Your task to perform on an android device: Show me popular videos on Youtube Image 0: 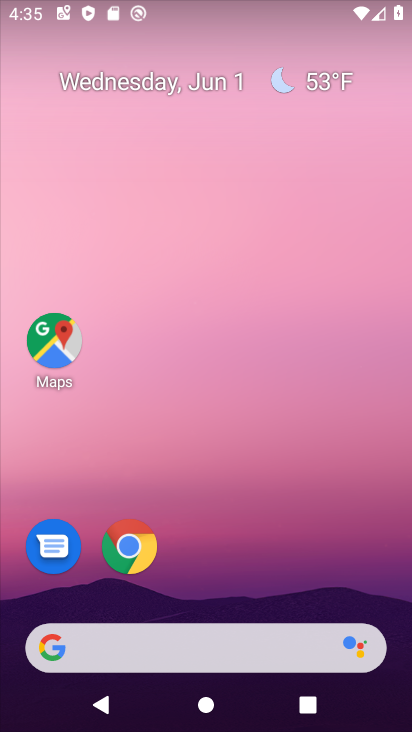
Step 0: click (133, 47)
Your task to perform on an android device: Show me popular videos on Youtube Image 1: 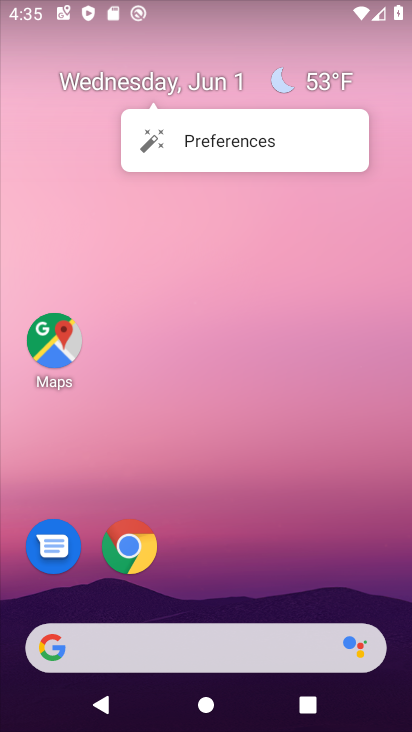
Step 1: drag from (180, 164) to (150, 55)
Your task to perform on an android device: Show me popular videos on Youtube Image 2: 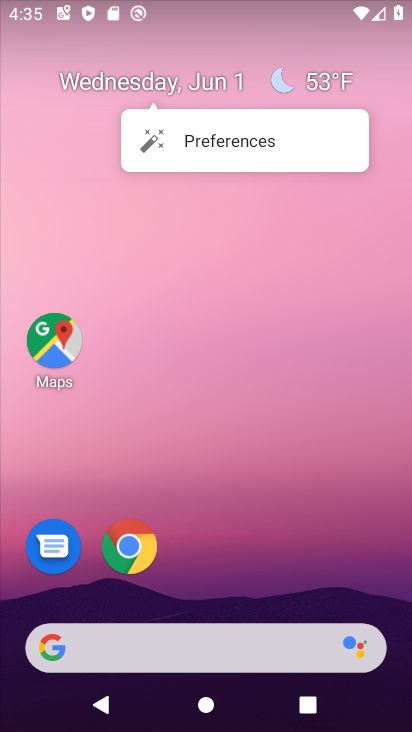
Step 2: drag from (236, 584) to (158, 271)
Your task to perform on an android device: Show me popular videos on Youtube Image 3: 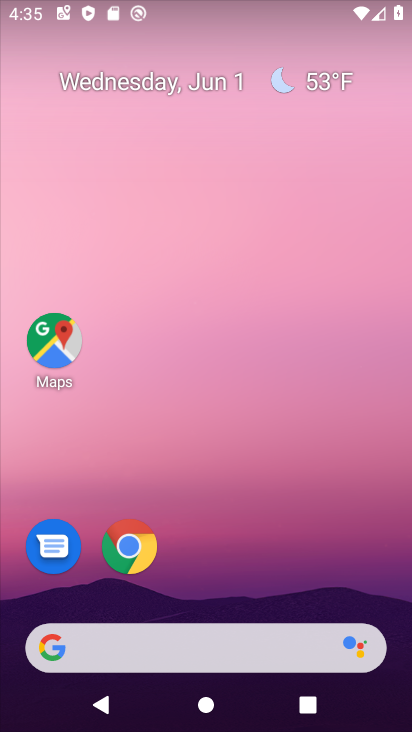
Step 3: drag from (201, 184) to (192, 136)
Your task to perform on an android device: Show me popular videos on Youtube Image 4: 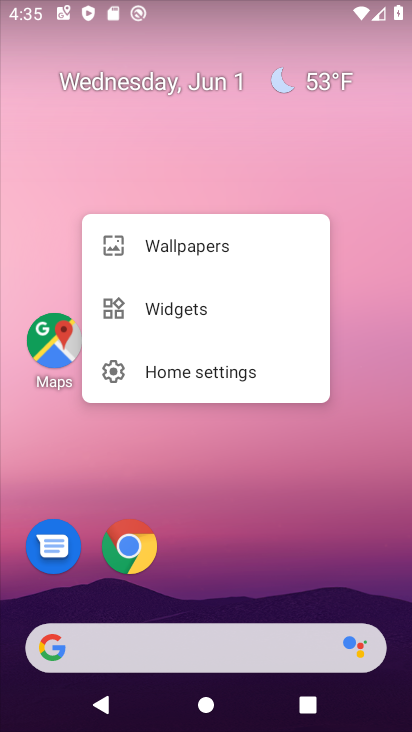
Step 4: drag from (269, 584) to (334, 156)
Your task to perform on an android device: Show me popular videos on Youtube Image 5: 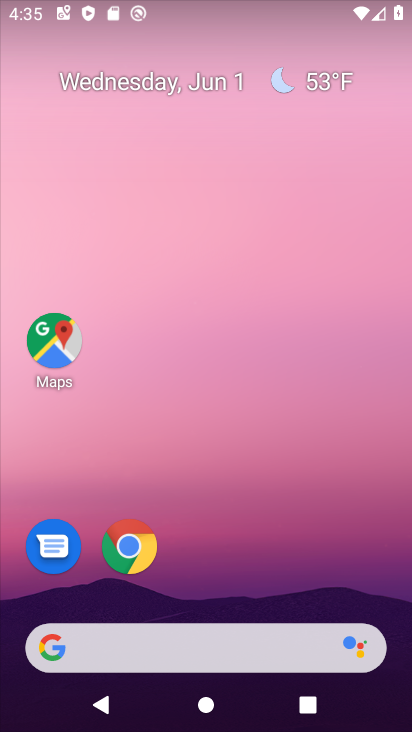
Step 5: drag from (272, 540) to (148, 252)
Your task to perform on an android device: Show me popular videos on Youtube Image 6: 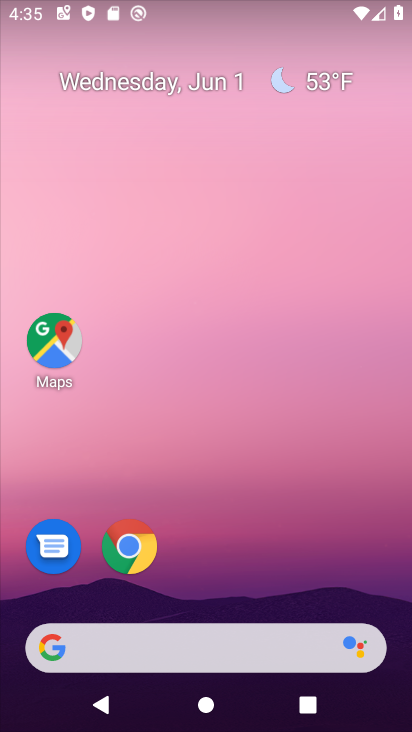
Step 6: drag from (228, 565) to (75, 110)
Your task to perform on an android device: Show me popular videos on Youtube Image 7: 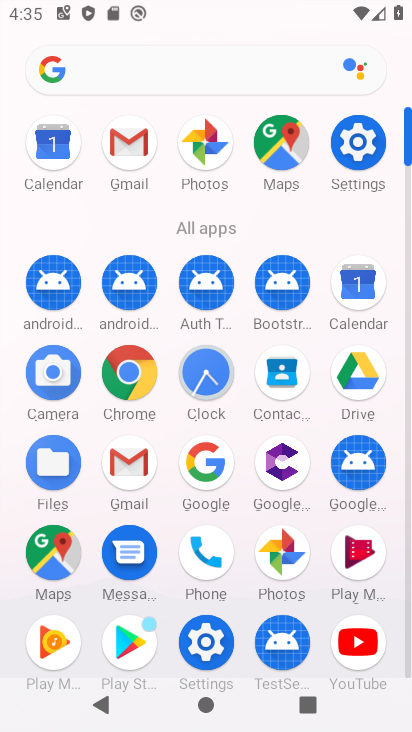
Step 7: click (360, 646)
Your task to perform on an android device: Show me popular videos on Youtube Image 8: 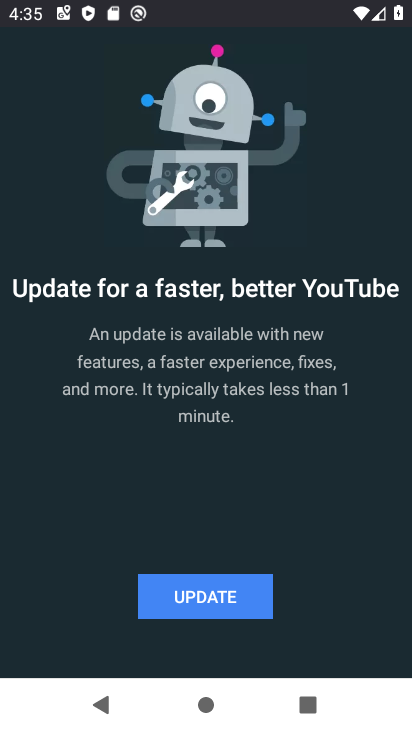
Step 8: click (219, 604)
Your task to perform on an android device: Show me popular videos on Youtube Image 9: 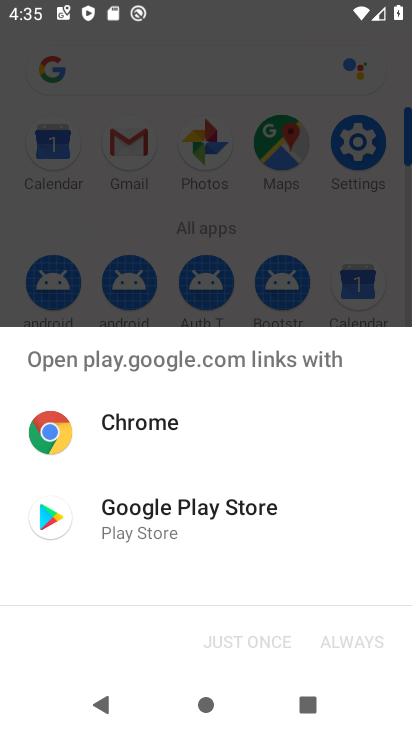
Step 9: click (151, 499)
Your task to perform on an android device: Show me popular videos on Youtube Image 10: 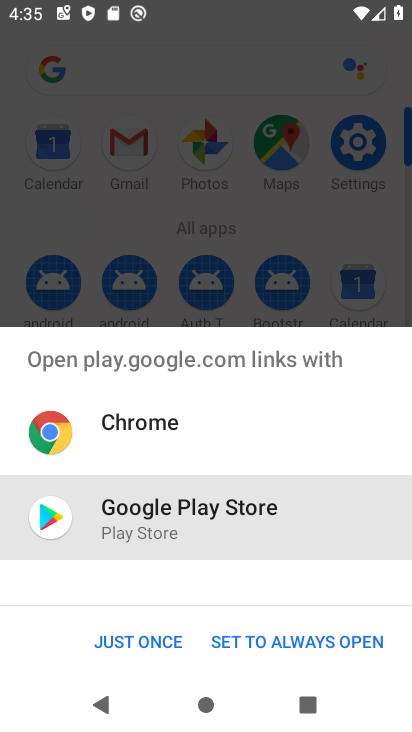
Step 10: click (130, 640)
Your task to perform on an android device: Show me popular videos on Youtube Image 11: 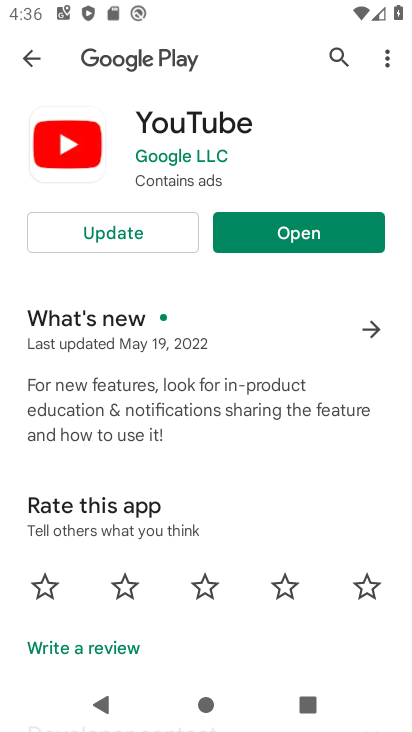
Step 11: click (123, 232)
Your task to perform on an android device: Show me popular videos on Youtube Image 12: 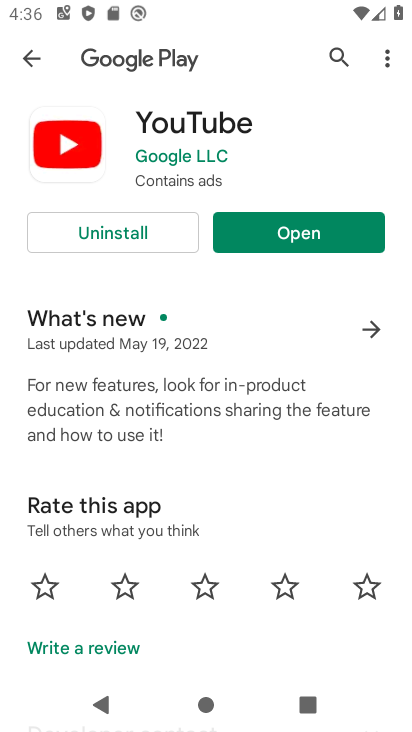
Step 12: click (274, 224)
Your task to perform on an android device: Show me popular videos on Youtube Image 13: 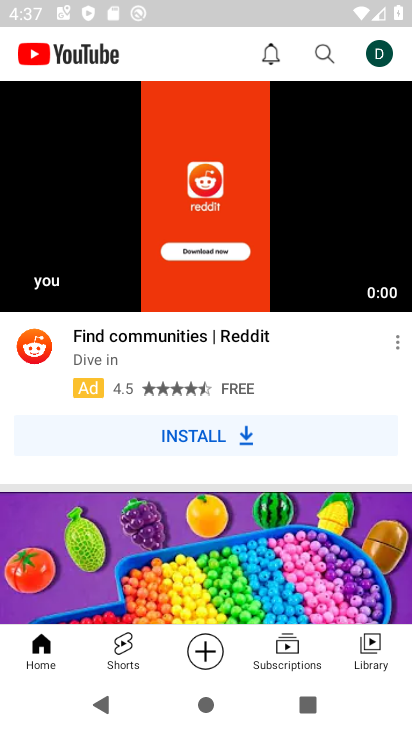
Step 13: click (125, 646)
Your task to perform on an android device: Show me popular videos on Youtube Image 14: 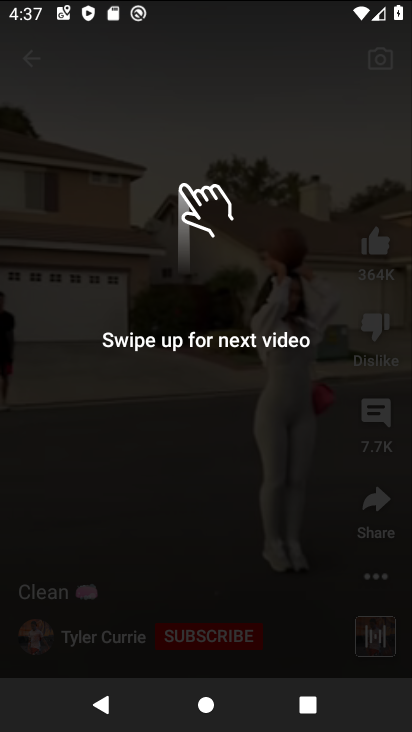
Step 14: task complete